Your task to perform on an android device: toggle notification dots Image 0: 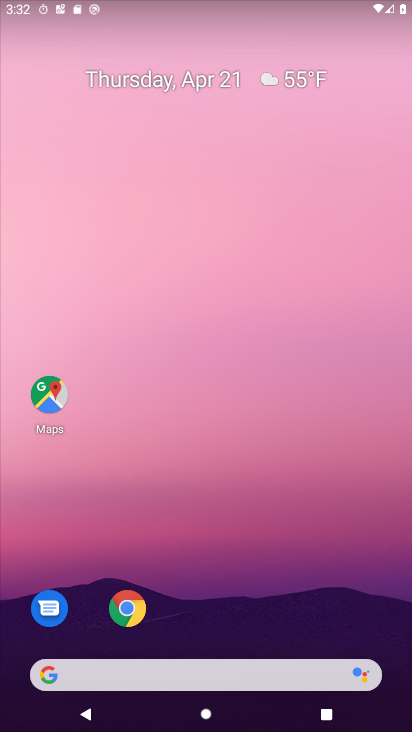
Step 0: drag from (209, 587) to (255, 21)
Your task to perform on an android device: toggle notification dots Image 1: 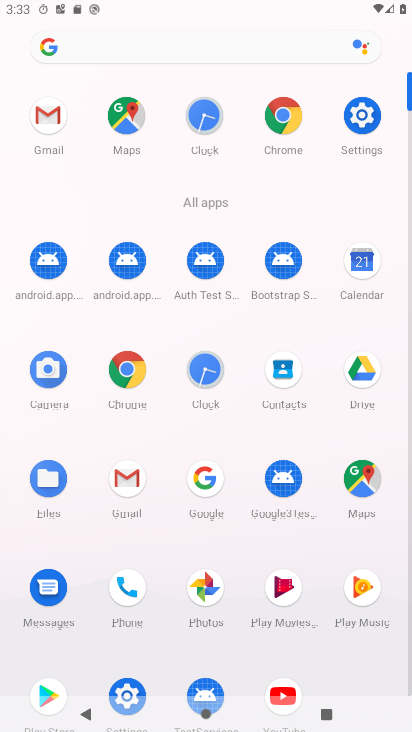
Step 1: click (358, 108)
Your task to perform on an android device: toggle notification dots Image 2: 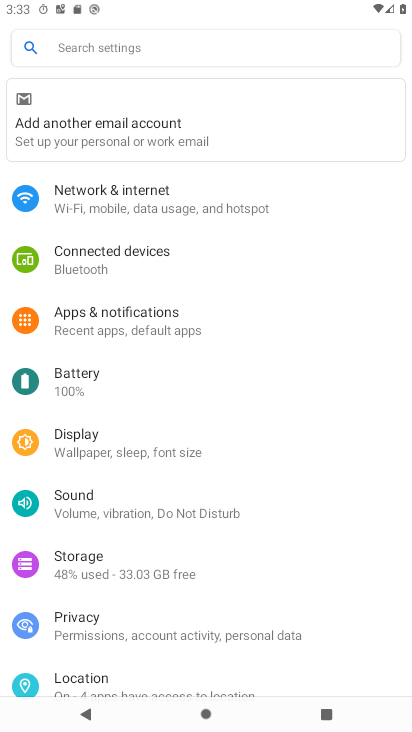
Step 2: click (183, 310)
Your task to perform on an android device: toggle notification dots Image 3: 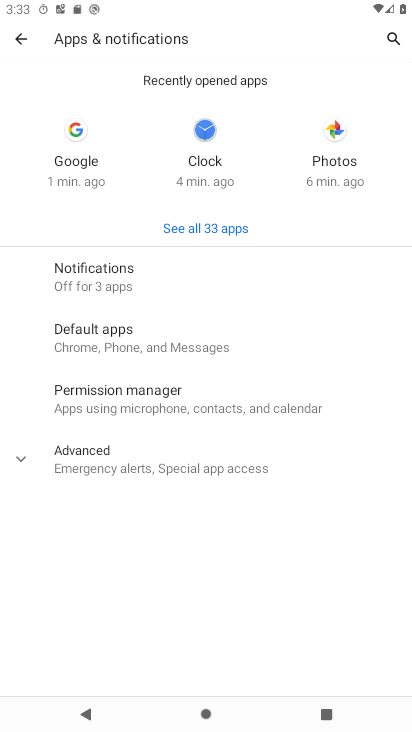
Step 3: click (123, 272)
Your task to perform on an android device: toggle notification dots Image 4: 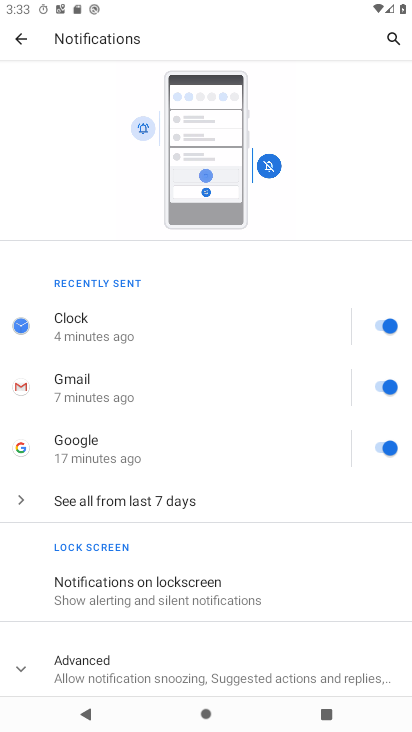
Step 4: click (168, 654)
Your task to perform on an android device: toggle notification dots Image 5: 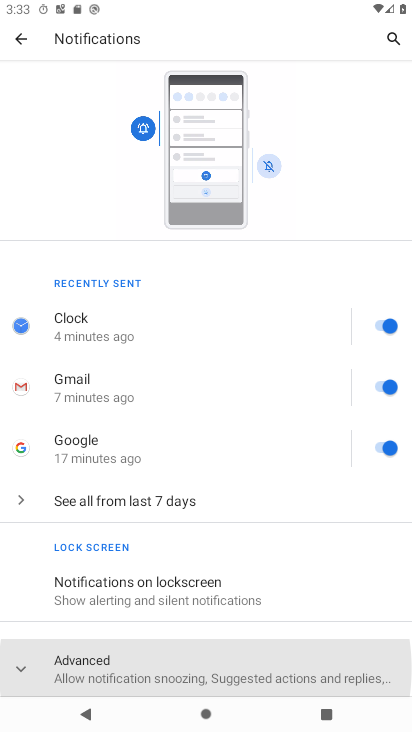
Step 5: drag from (258, 686) to (263, 147)
Your task to perform on an android device: toggle notification dots Image 6: 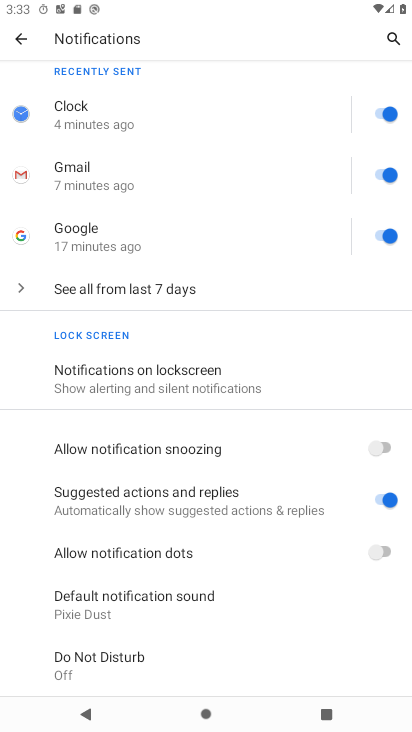
Step 6: click (216, 554)
Your task to perform on an android device: toggle notification dots Image 7: 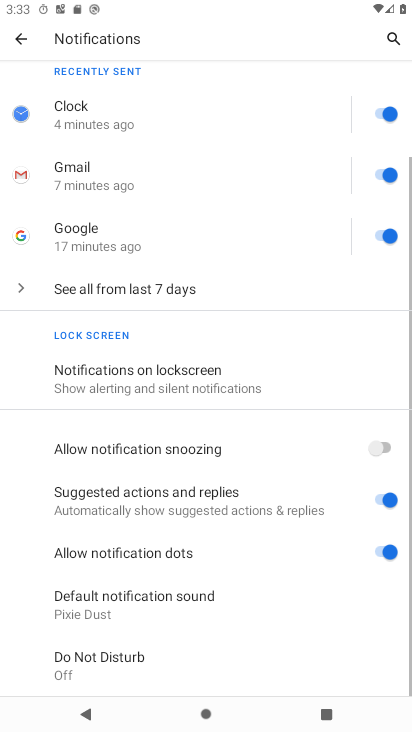
Step 7: task complete